Your task to perform on an android device: add a contact Image 0: 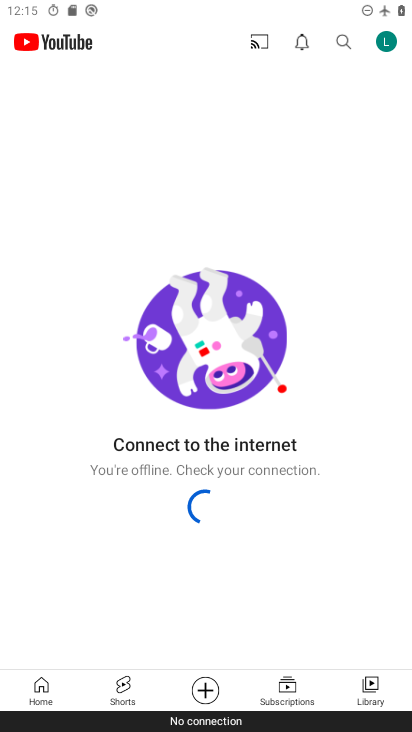
Step 0: press home button
Your task to perform on an android device: add a contact Image 1: 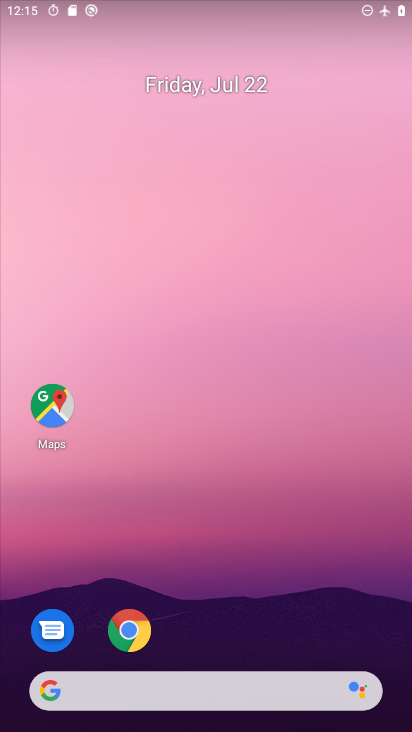
Step 1: drag from (208, 635) to (331, 25)
Your task to perform on an android device: add a contact Image 2: 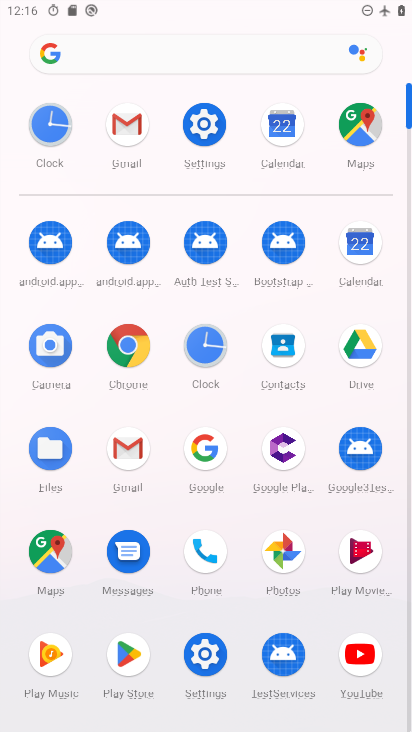
Step 2: click (285, 355)
Your task to perform on an android device: add a contact Image 3: 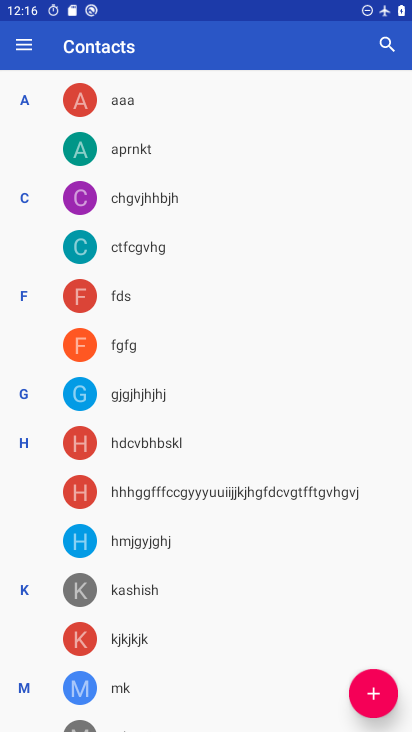
Step 3: click (373, 691)
Your task to perform on an android device: add a contact Image 4: 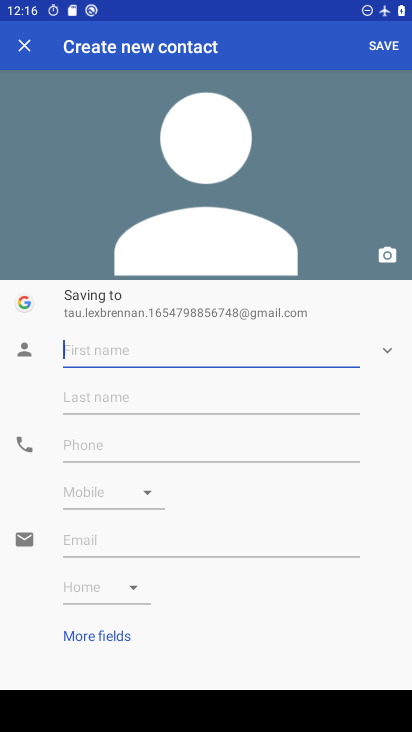
Step 4: type "gfgfgfg"
Your task to perform on an android device: add a contact Image 5: 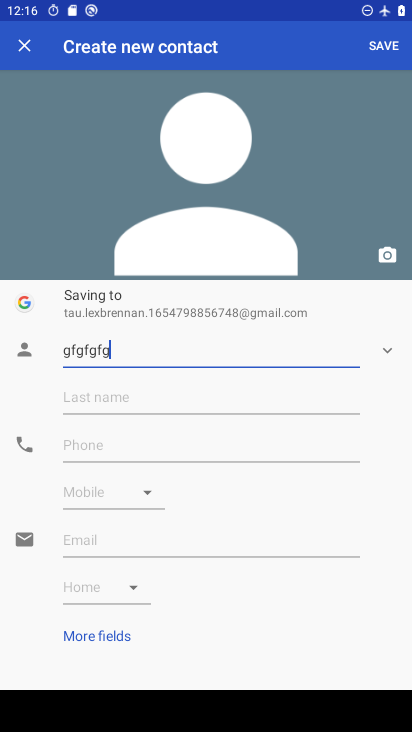
Step 5: click (188, 438)
Your task to perform on an android device: add a contact Image 6: 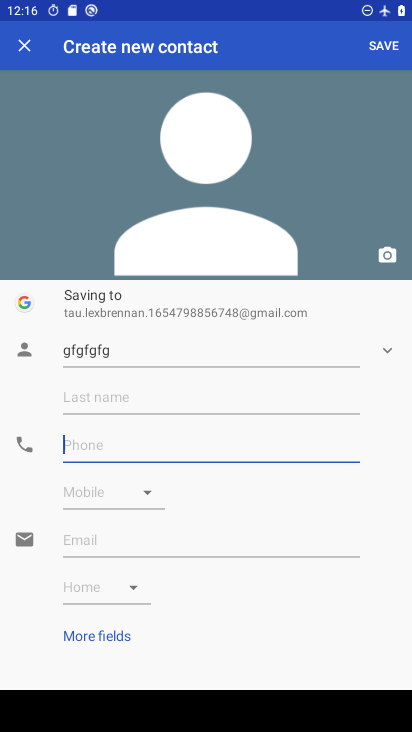
Step 6: type "676766"
Your task to perform on an android device: add a contact Image 7: 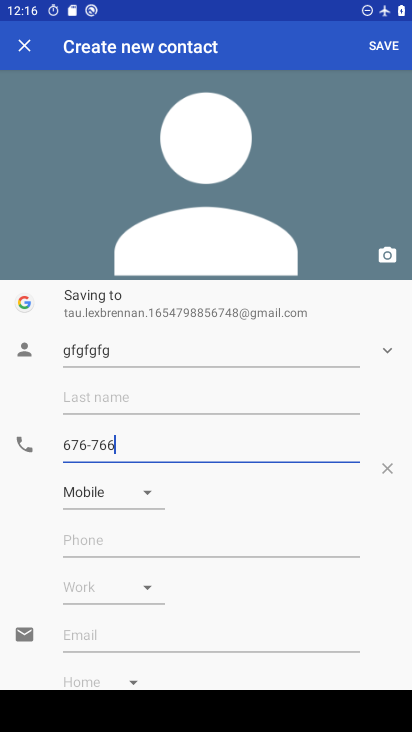
Step 7: click (381, 45)
Your task to perform on an android device: add a contact Image 8: 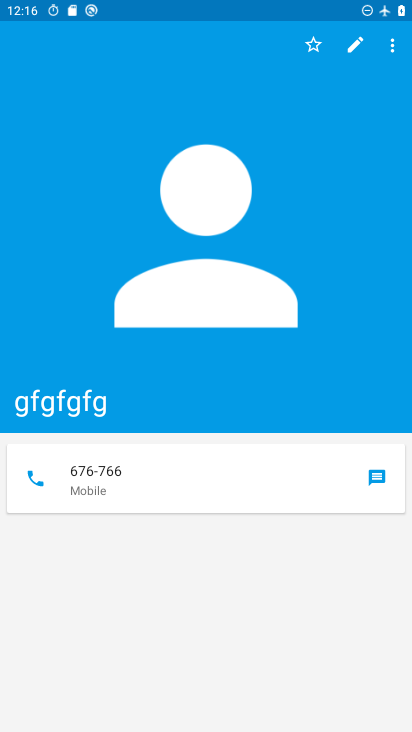
Step 8: task complete